Your task to perform on an android device: add a label to a message in the gmail app Image 0: 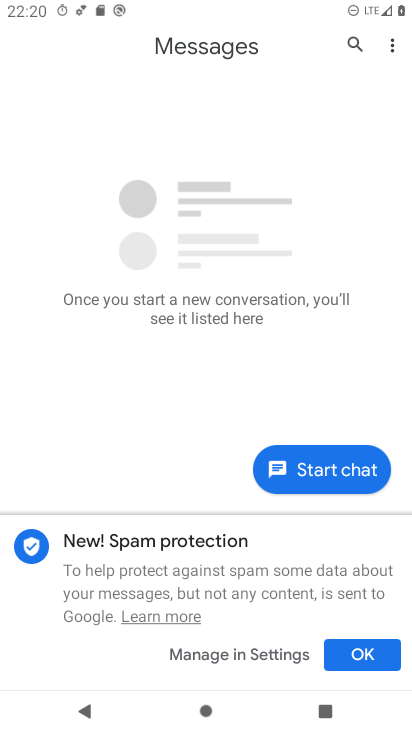
Step 0: press home button
Your task to perform on an android device: add a label to a message in the gmail app Image 1: 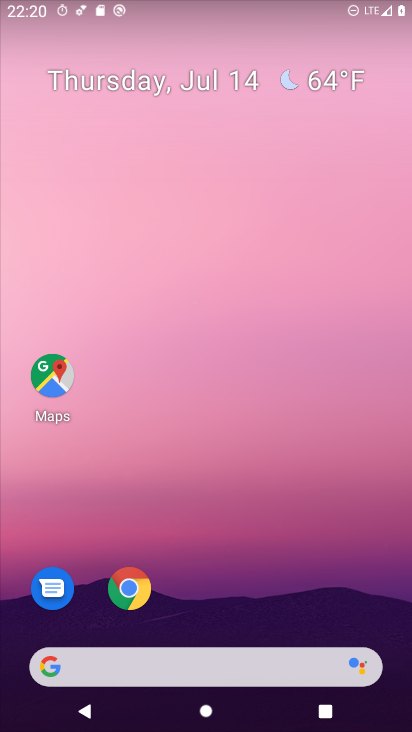
Step 1: drag from (359, 575) to (388, 55)
Your task to perform on an android device: add a label to a message in the gmail app Image 2: 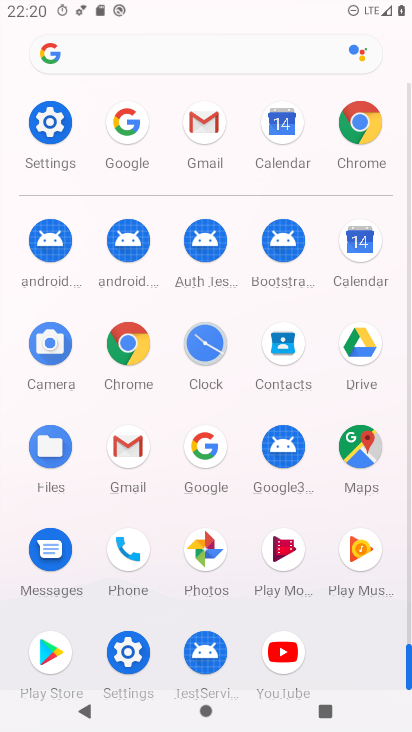
Step 2: click (208, 135)
Your task to perform on an android device: add a label to a message in the gmail app Image 3: 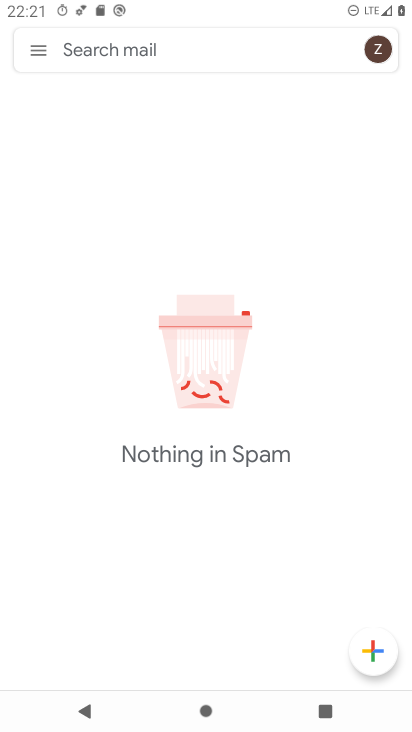
Step 3: click (43, 57)
Your task to perform on an android device: add a label to a message in the gmail app Image 4: 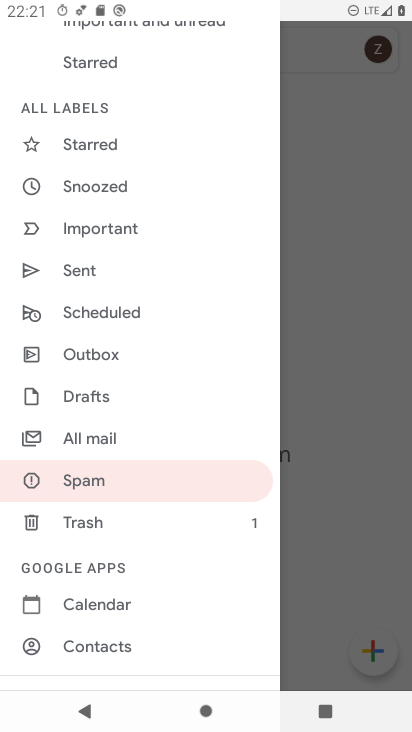
Step 4: drag from (213, 219) to (207, 308)
Your task to perform on an android device: add a label to a message in the gmail app Image 5: 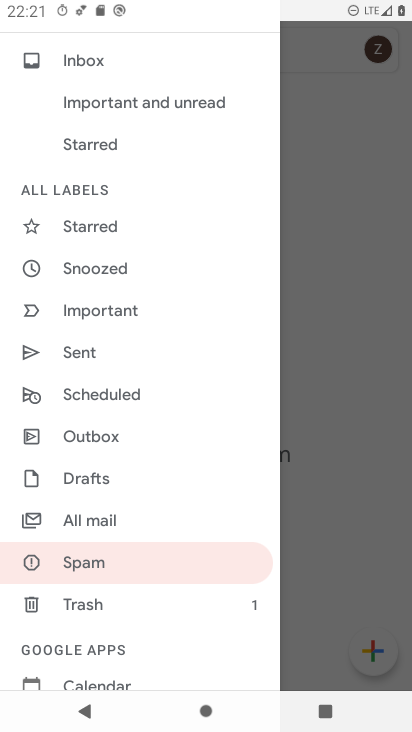
Step 5: drag from (215, 199) to (207, 301)
Your task to perform on an android device: add a label to a message in the gmail app Image 6: 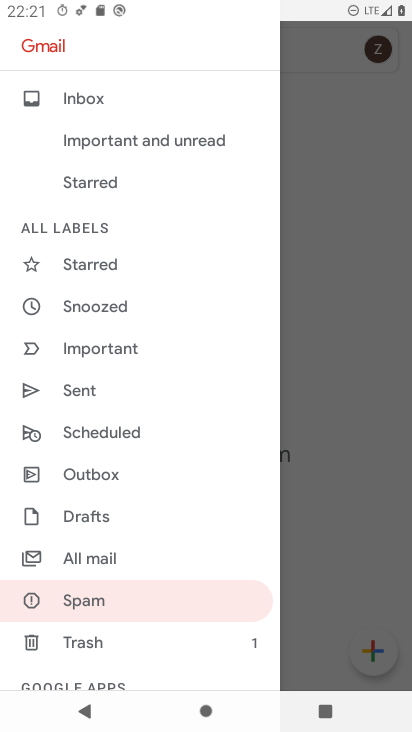
Step 6: click (123, 97)
Your task to perform on an android device: add a label to a message in the gmail app Image 7: 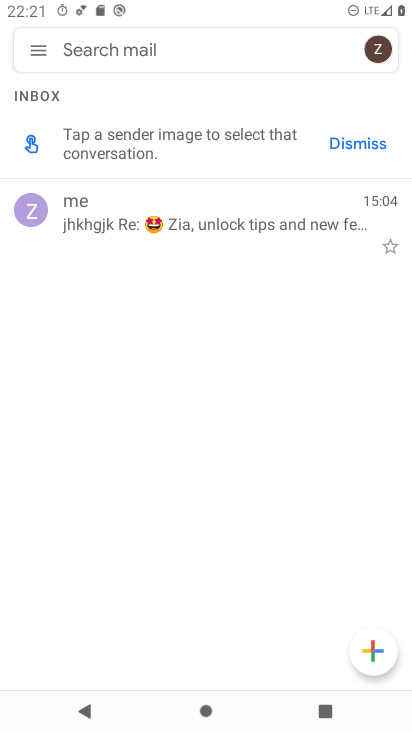
Step 7: click (246, 225)
Your task to perform on an android device: add a label to a message in the gmail app Image 8: 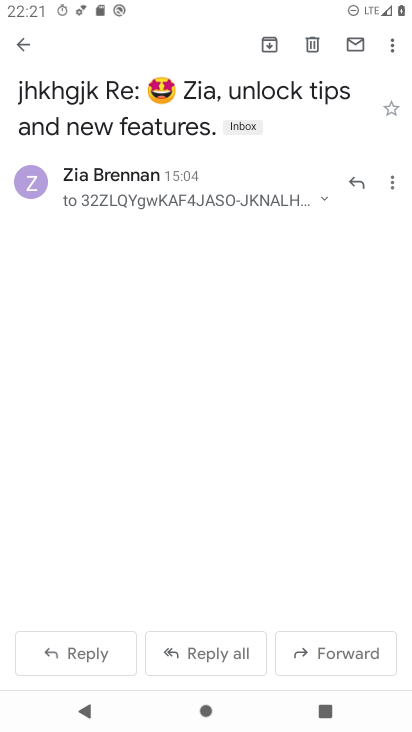
Step 8: click (251, 132)
Your task to perform on an android device: add a label to a message in the gmail app Image 9: 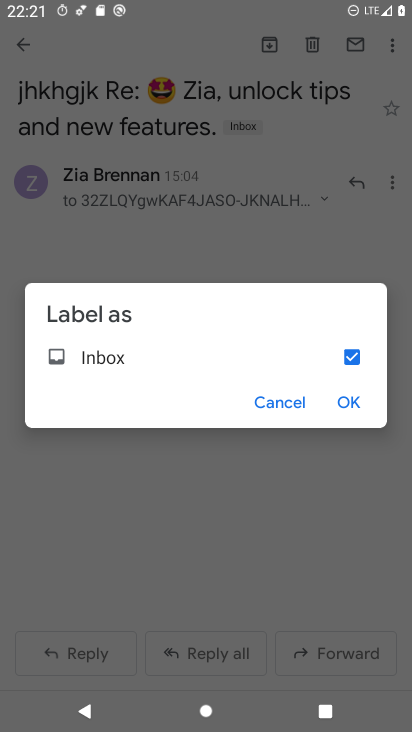
Step 9: click (346, 400)
Your task to perform on an android device: add a label to a message in the gmail app Image 10: 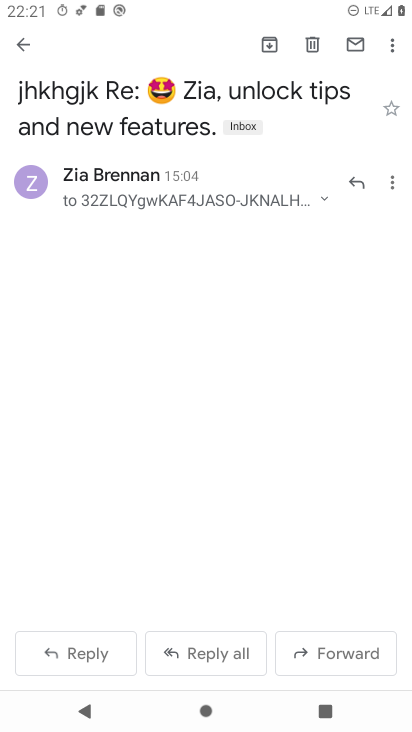
Step 10: task complete